Your task to perform on an android device: Open internet settings Image 0: 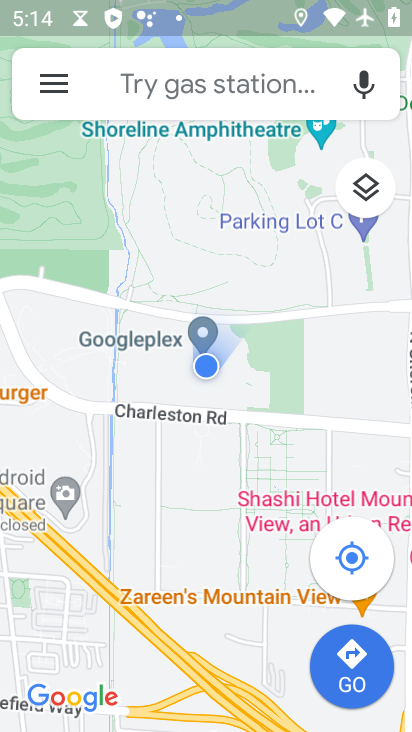
Step 0: drag from (369, 629) to (192, 220)
Your task to perform on an android device: Open internet settings Image 1: 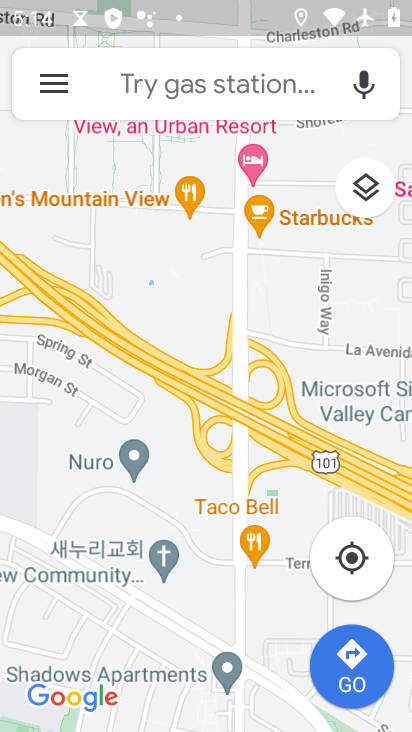
Step 1: press back button
Your task to perform on an android device: Open internet settings Image 2: 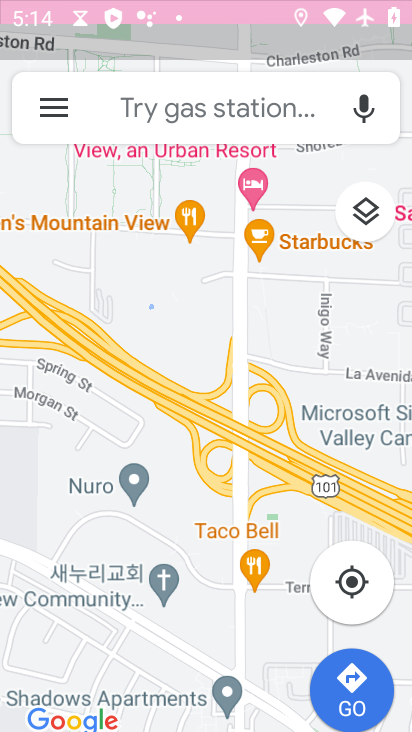
Step 2: press back button
Your task to perform on an android device: Open internet settings Image 3: 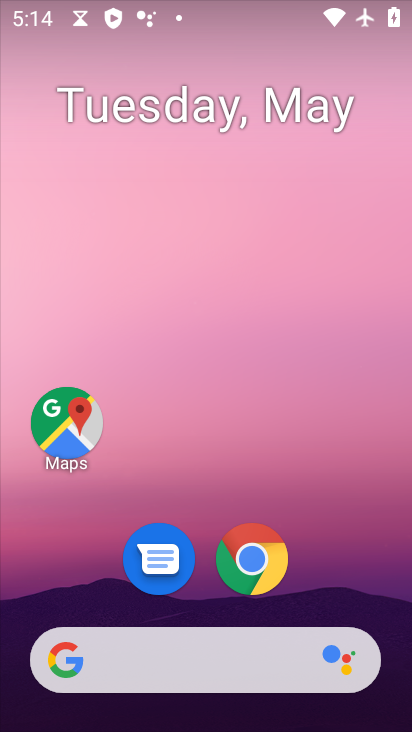
Step 3: drag from (318, 609) to (191, 118)
Your task to perform on an android device: Open internet settings Image 4: 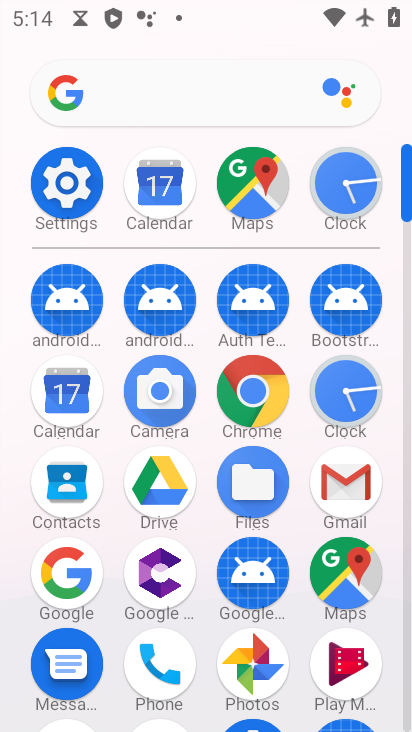
Step 4: click (73, 185)
Your task to perform on an android device: Open internet settings Image 5: 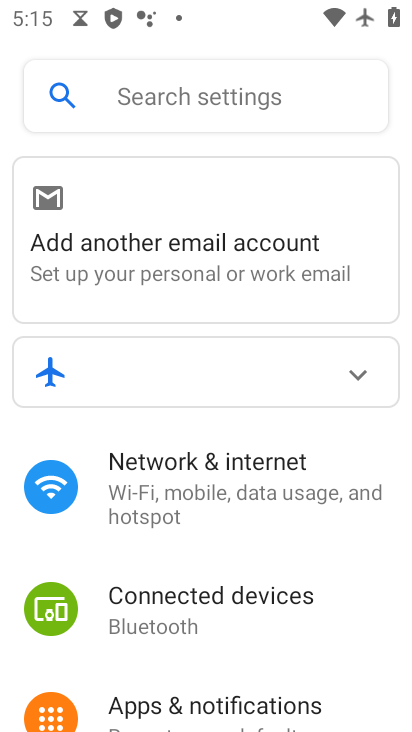
Step 5: click (208, 484)
Your task to perform on an android device: Open internet settings Image 6: 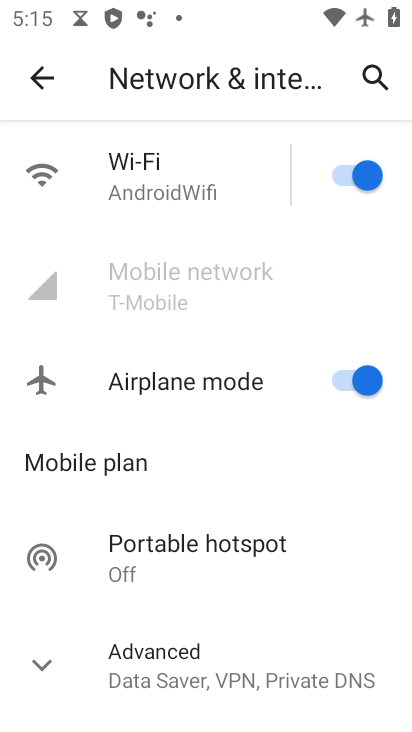
Step 6: task complete